Your task to perform on an android device: Open the stopwatch Image 0: 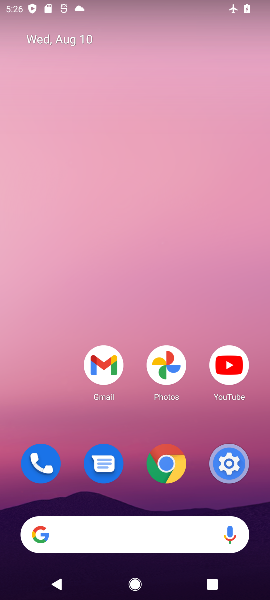
Step 0: drag from (128, 496) to (116, 95)
Your task to perform on an android device: Open the stopwatch Image 1: 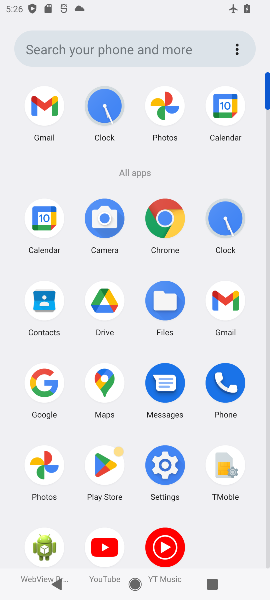
Step 1: click (223, 220)
Your task to perform on an android device: Open the stopwatch Image 2: 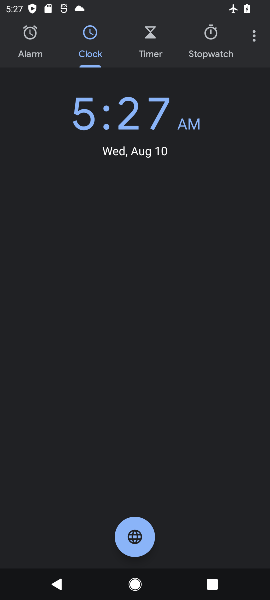
Step 2: click (210, 47)
Your task to perform on an android device: Open the stopwatch Image 3: 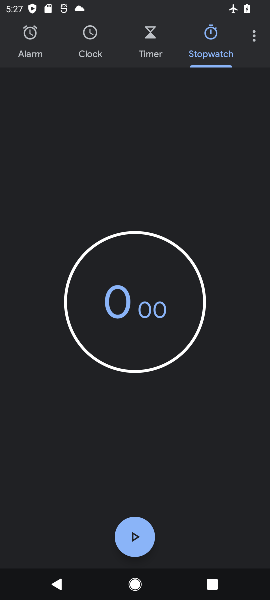
Step 3: task complete